Your task to perform on an android device: Open the web browser Image 0: 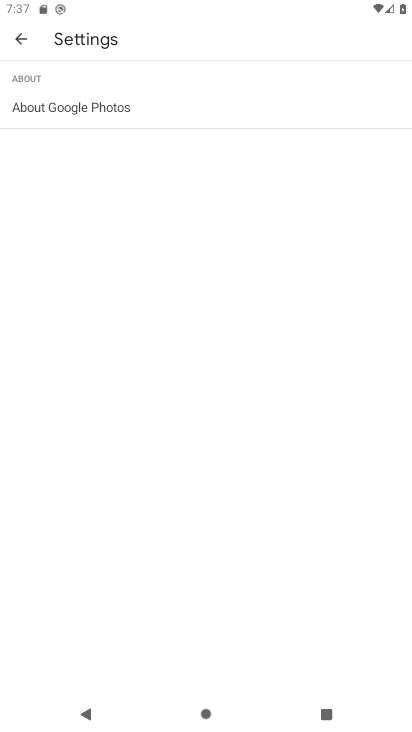
Step 0: press home button
Your task to perform on an android device: Open the web browser Image 1: 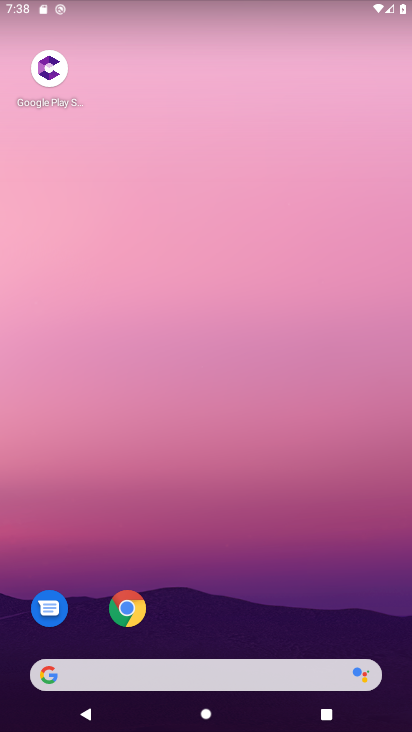
Step 1: drag from (227, 652) to (229, 145)
Your task to perform on an android device: Open the web browser Image 2: 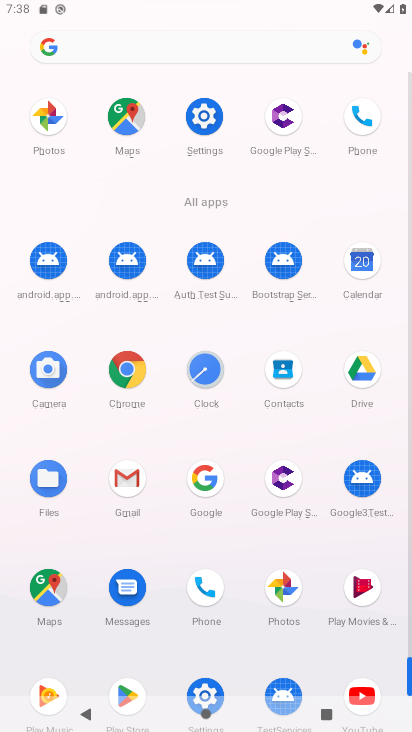
Step 2: click (128, 363)
Your task to perform on an android device: Open the web browser Image 3: 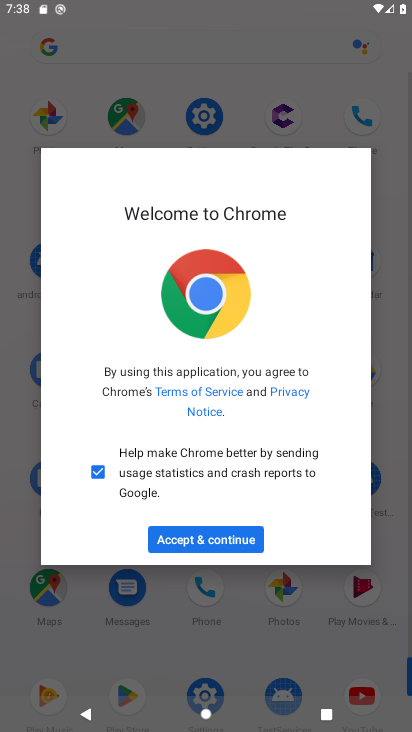
Step 3: click (179, 534)
Your task to perform on an android device: Open the web browser Image 4: 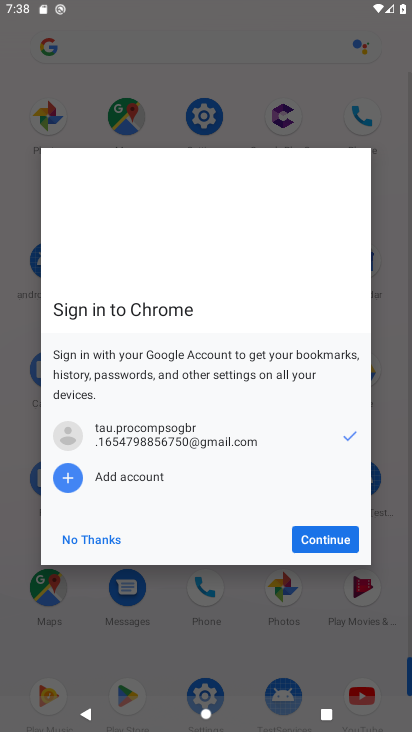
Step 4: click (323, 539)
Your task to perform on an android device: Open the web browser Image 5: 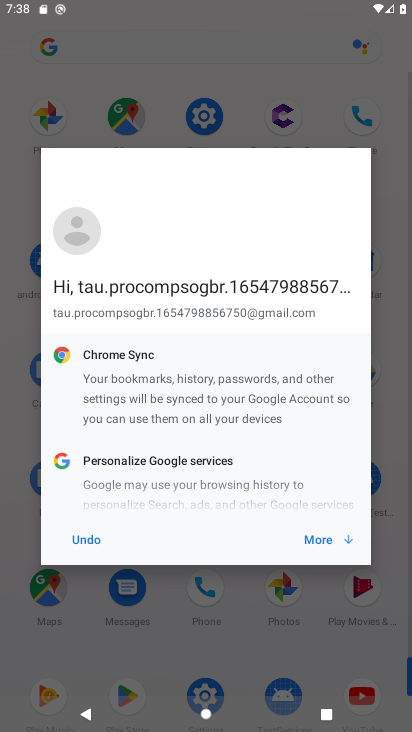
Step 5: click (323, 539)
Your task to perform on an android device: Open the web browser Image 6: 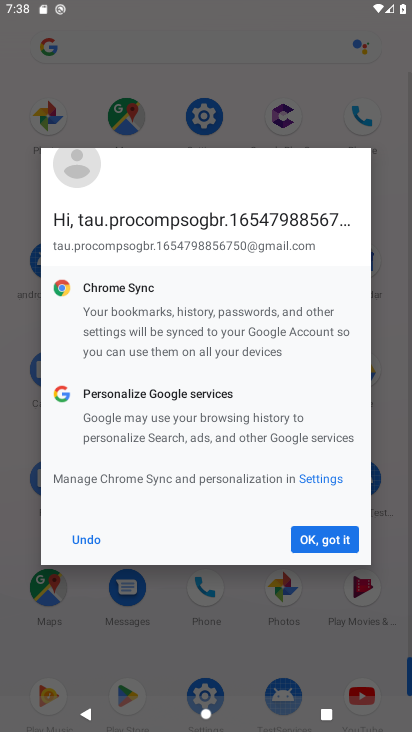
Step 6: click (325, 539)
Your task to perform on an android device: Open the web browser Image 7: 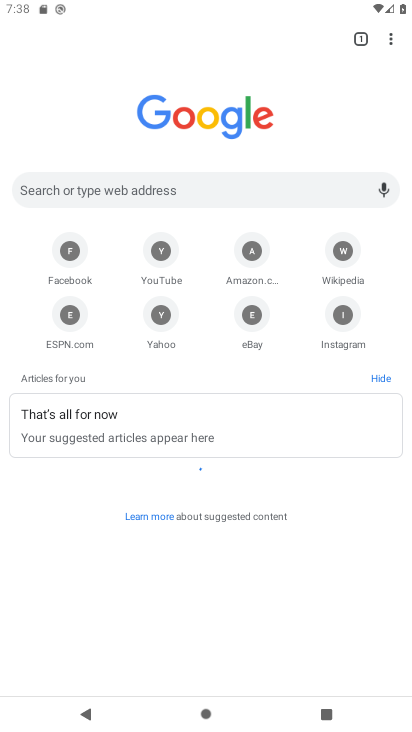
Step 7: task complete